Your task to perform on an android device: Search for Mexican restaurants on Maps Image 0: 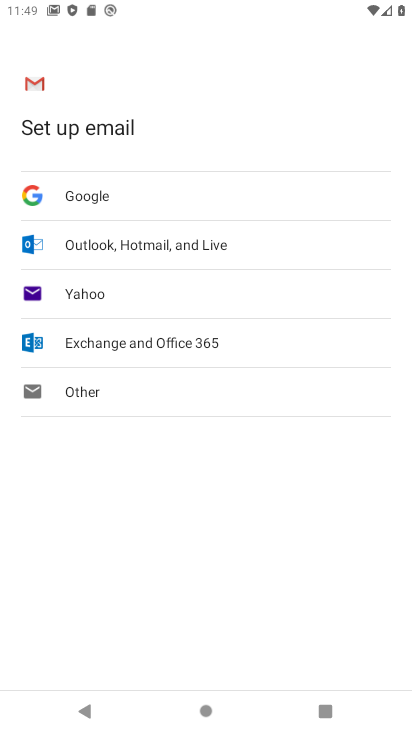
Step 0: press home button
Your task to perform on an android device: Search for Mexican restaurants on Maps Image 1: 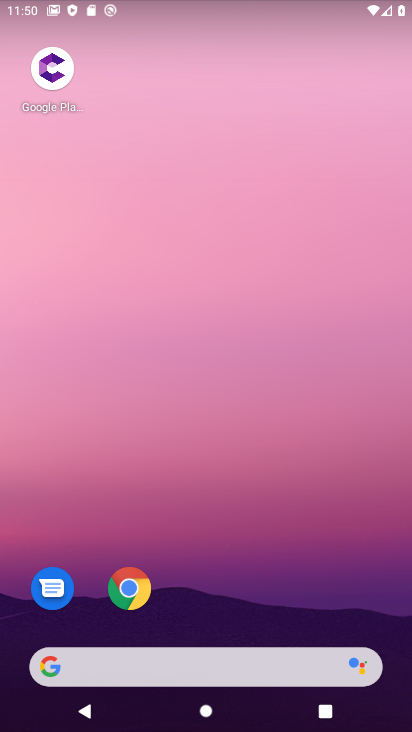
Step 1: drag from (391, 702) to (342, 109)
Your task to perform on an android device: Search for Mexican restaurants on Maps Image 2: 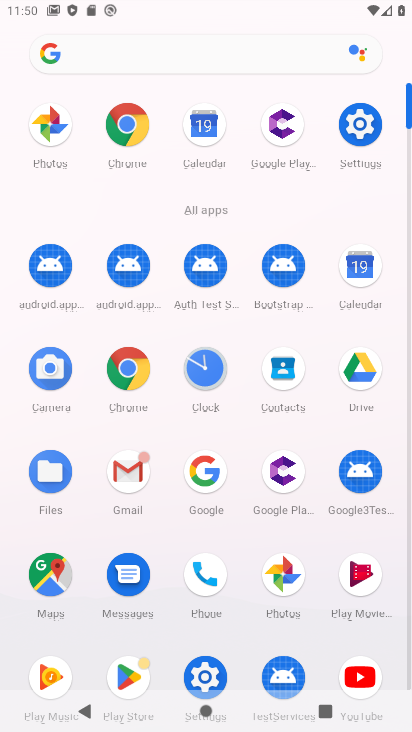
Step 2: click (66, 566)
Your task to perform on an android device: Search for Mexican restaurants on Maps Image 3: 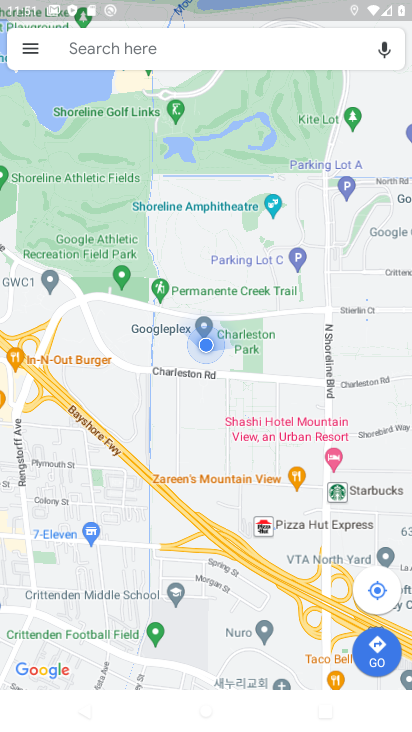
Step 3: click (81, 45)
Your task to perform on an android device: Search for Mexican restaurants on Maps Image 4: 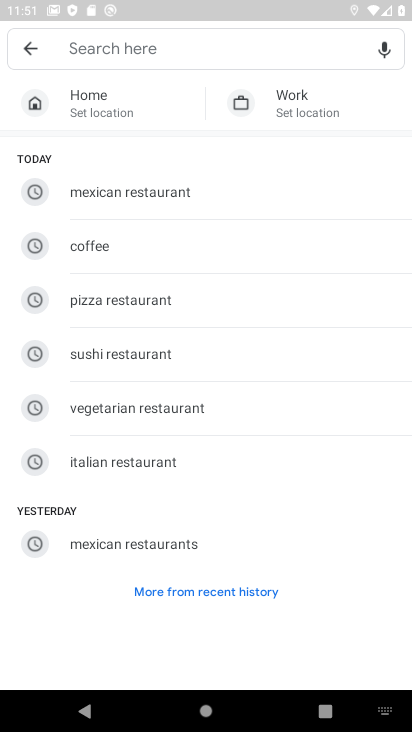
Step 4: type "Mexican restaurants"
Your task to perform on an android device: Search for Mexican restaurants on Maps Image 5: 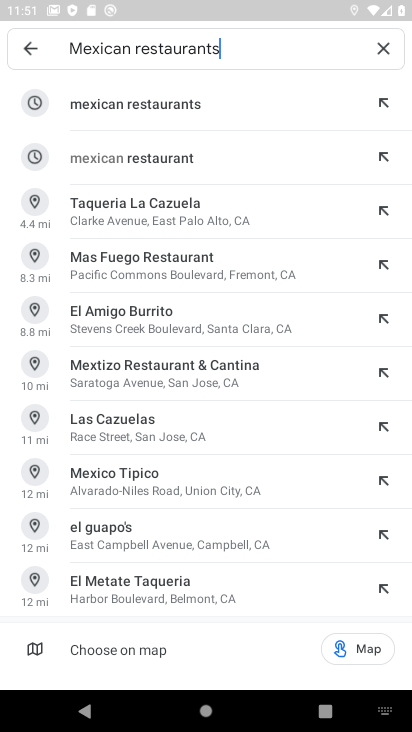
Step 5: click (165, 109)
Your task to perform on an android device: Search for Mexican restaurants on Maps Image 6: 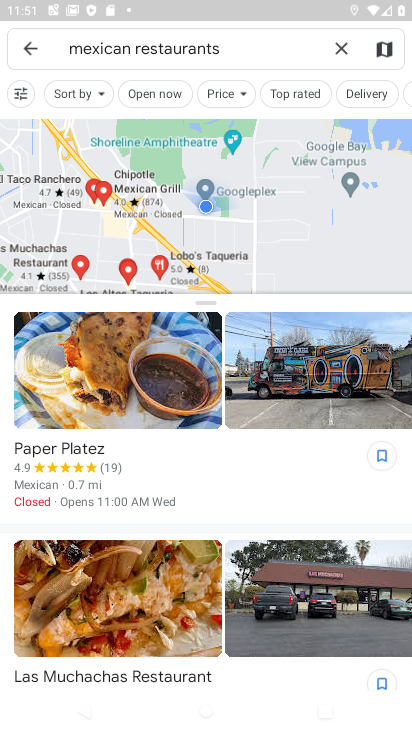
Step 6: task complete